Your task to perform on an android device: Open the Play Movies app and select the watchlist tab. Image 0: 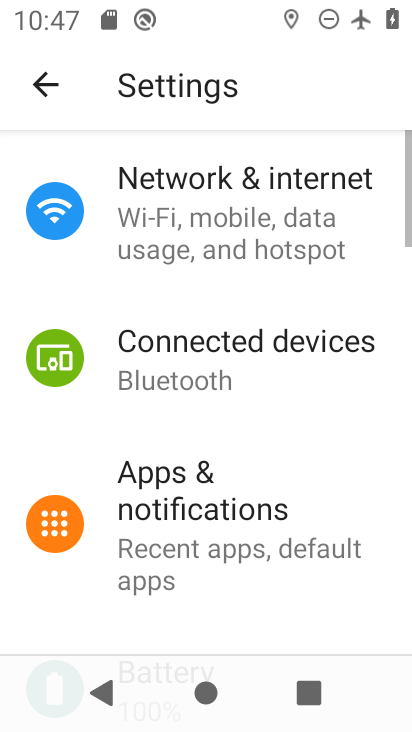
Step 0: press home button
Your task to perform on an android device: Open the Play Movies app and select the watchlist tab. Image 1: 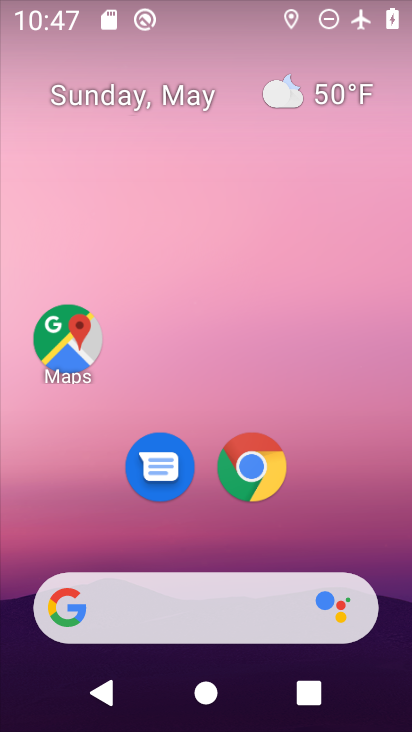
Step 1: drag from (206, 555) to (207, 162)
Your task to perform on an android device: Open the Play Movies app and select the watchlist tab. Image 2: 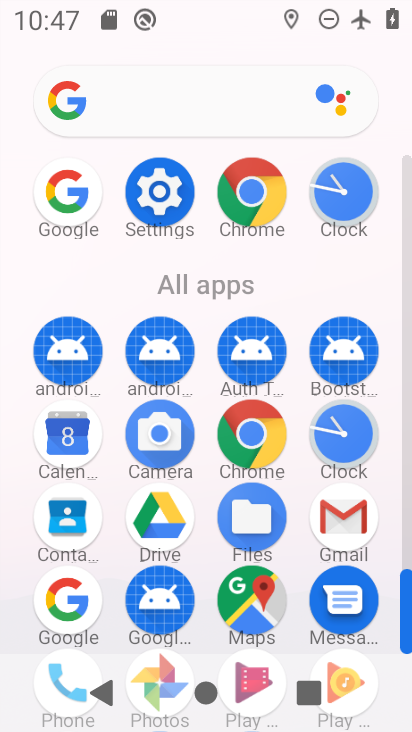
Step 2: drag from (293, 604) to (297, 273)
Your task to perform on an android device: Open the Play Movies app and select the watchlist tab. Image 3: 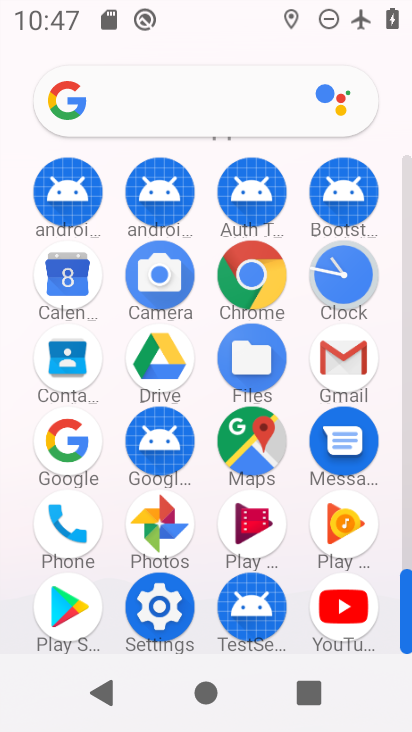
Step 3: click (270, 514)
Your task to perform on an android device: Open the Play Movies app and select the watchlist tab. Image 4: 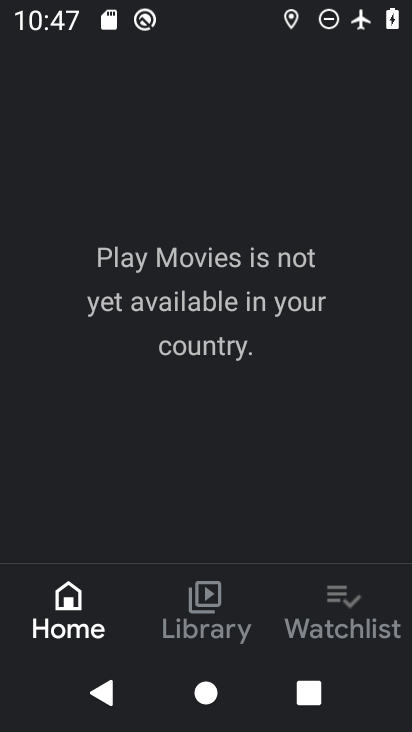
Step 4: click (321, 600)
Your task to perform on an android device: Open the Play Movies app and select the watchlist tab. Image 5: 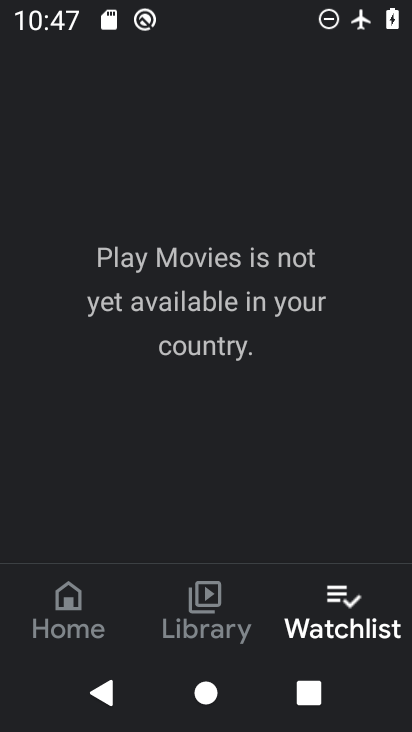
Step 5: task complete